Your task to perform on an android device: Open calendar and show me the third week of next month Image 0: 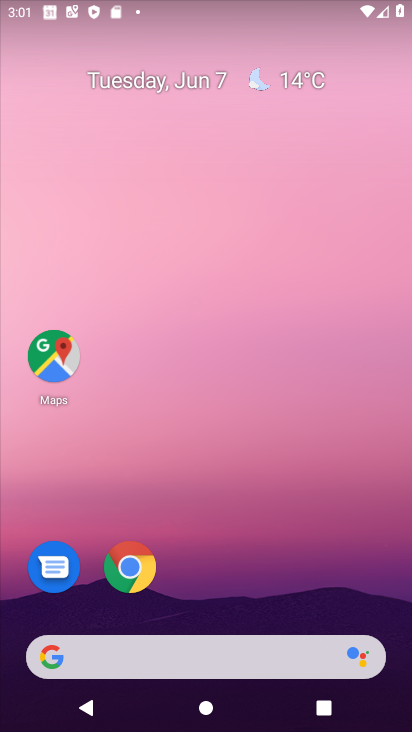
Step 0: drag from (210, 592) to (210, 217)
Your task to perform on an android device: Open calendar and show me the third week of next month Image 1: 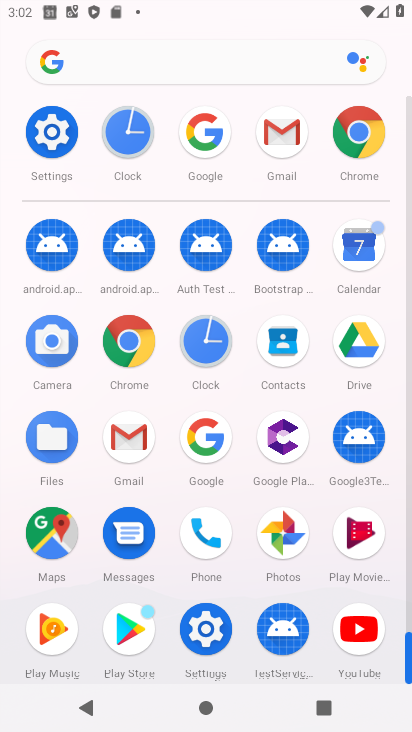
Step 1: click (365, 263)
Your task to perform on an android device: Open calendar and show me the third week of next month Image 2: 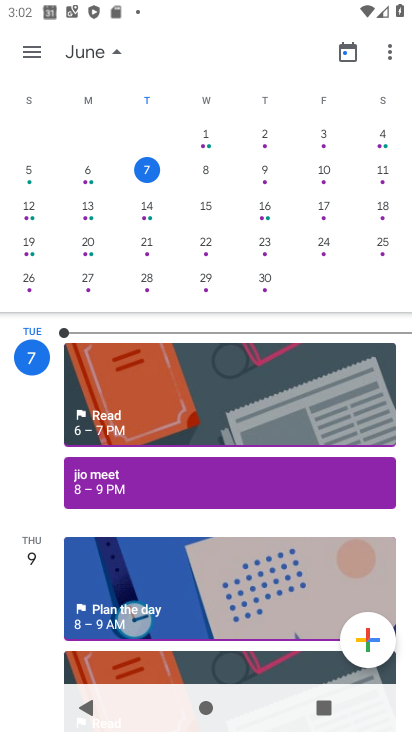
Step 2: drag from (339, 200) to (86, 219)
Your task to perform on an android device: Open calendar and show me the third week of next month Image 3: 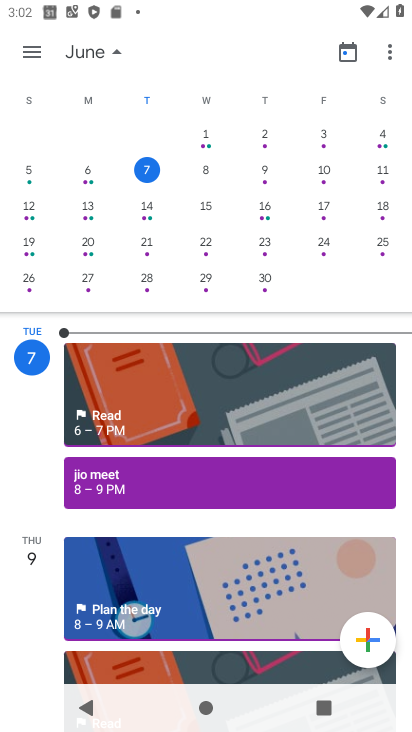
Step 3: drag from (357, 192) to (4, 166)
Your task to perform on an android device: Open calendar and show me the third week of next month Image 4: 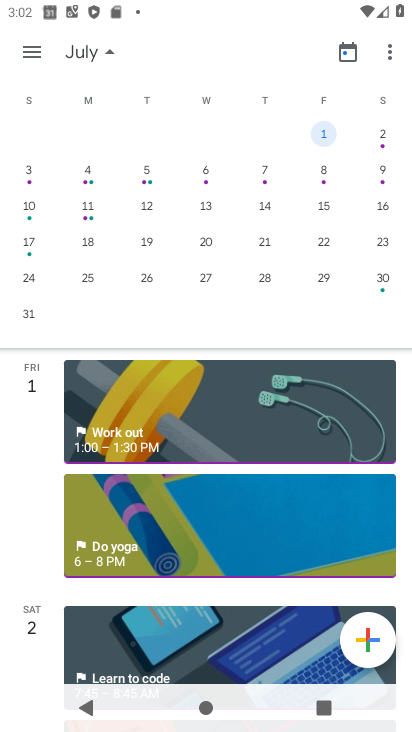
Step 4: click (32, 202)
Your task to perform on an android device: Open calendar and show me the third week of next month Image 5: 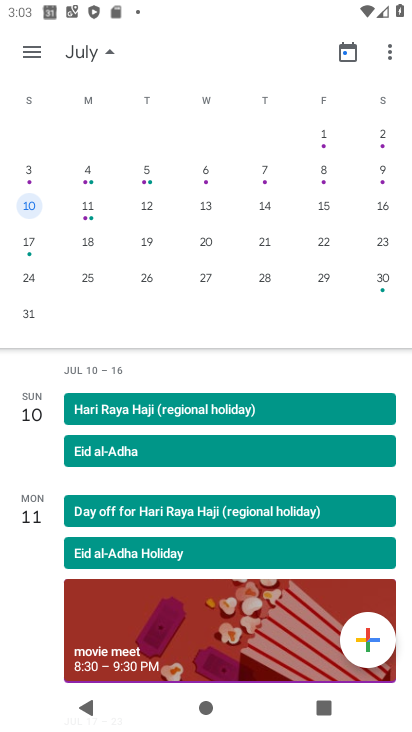
Step 5: click (34, 198)
Your task to perform on an android device: Open calendar and show me the third week of next month Image 6: 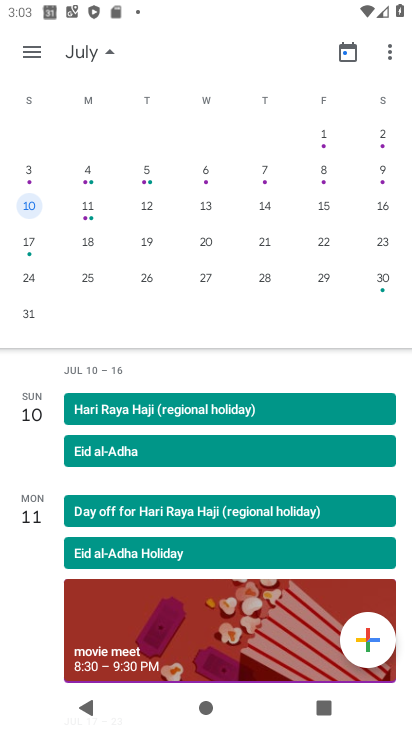
Step 6: task complete